Your task to perform on an android device: turn off location history Image 0: 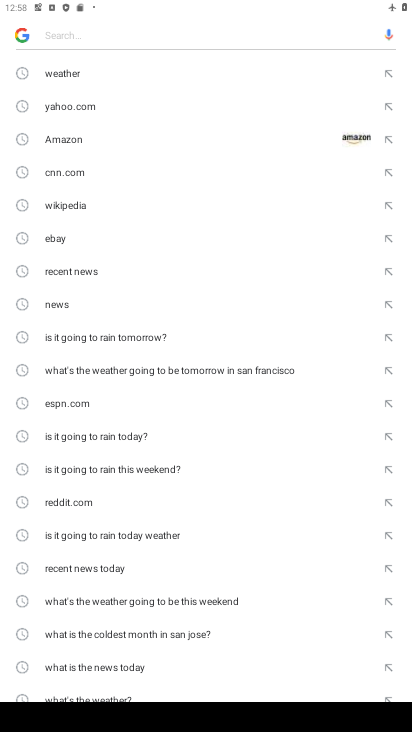
Step 0: press home button
Your task to perform on an android device: turn off location history Image 1: 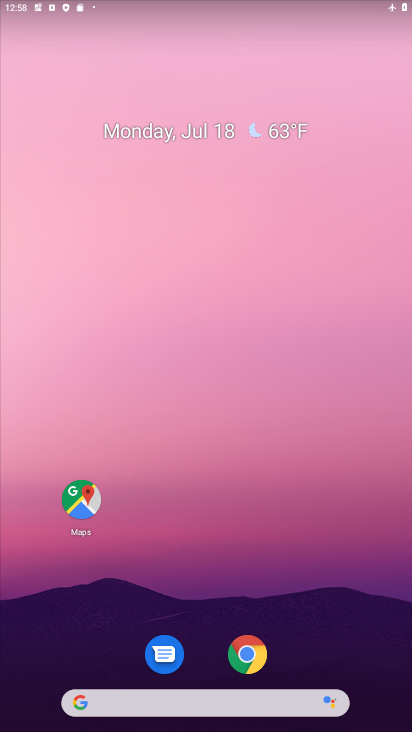
Step 1: drag from (190, 564) to (408, 0)
Your task to perform on an android device: turn off location history Image 2: 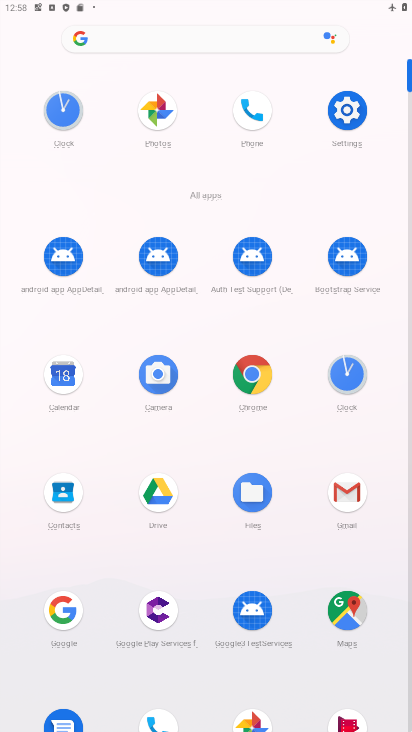
Step 2: click (337, 109)
Your task to perform on an android device: turn off location history Image 3: 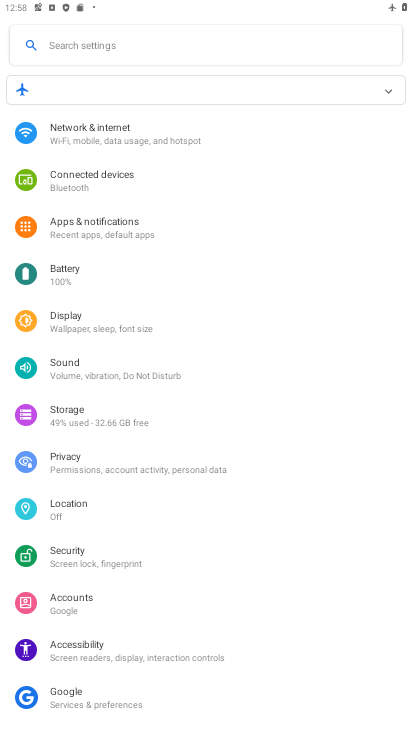
Step 3: click (120, 510)
Your task to perform on an android device: turn off location history Image 4: 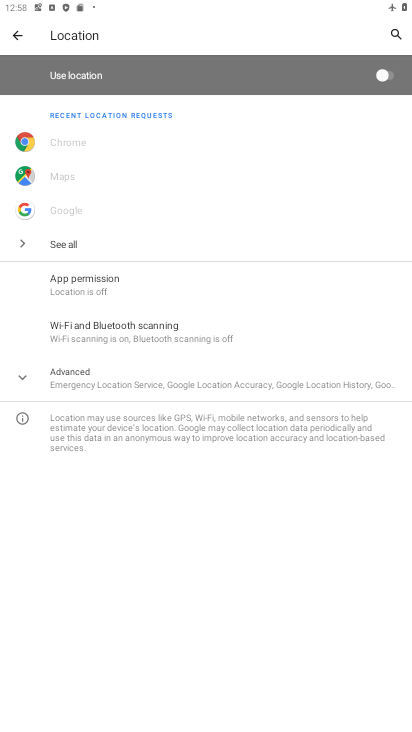
Step 4: click (101, 375)
Your task to perform on an android device: turn off location history Image 5: 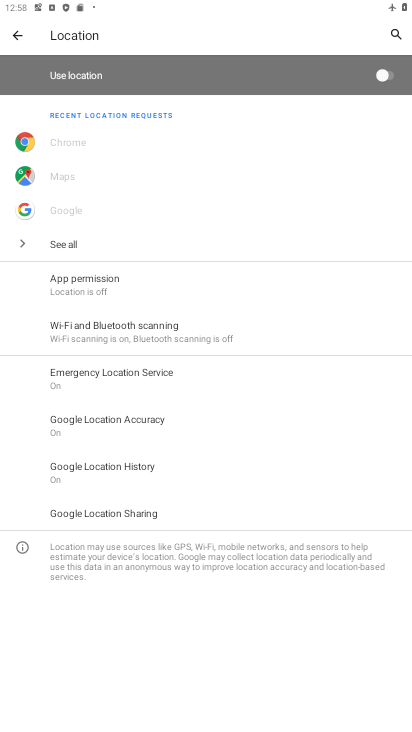
Step 5: click (156, 474)
Your task to perform on an android device: turn off location history Image 6: 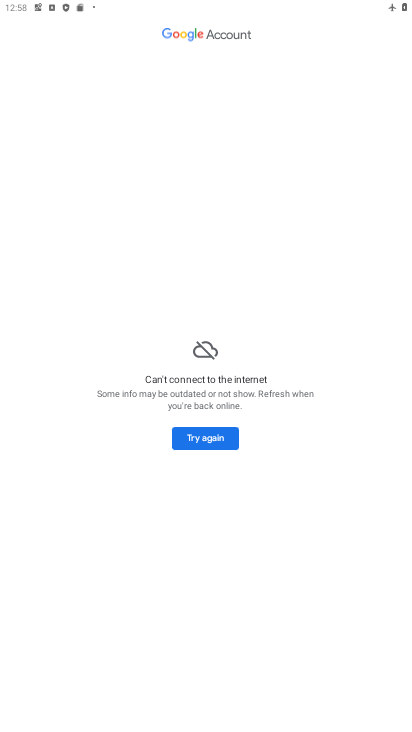
Step 6: task complete